Your task to perform on an android device: Show me popular games on the Play Store Image 0: 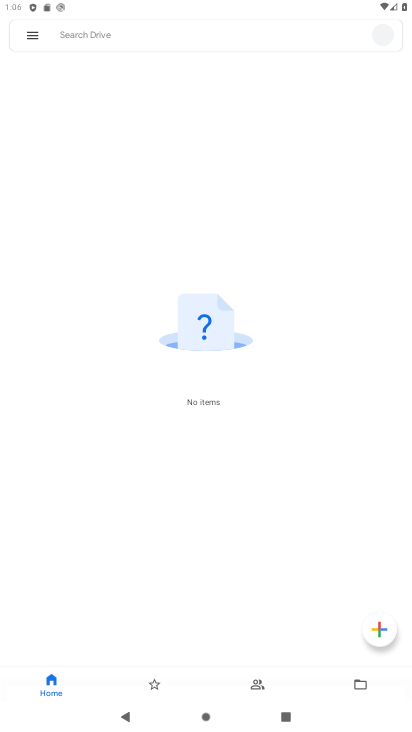
Step 0: press home button
Your task to perform on an android device: Show me popular games on the Play Store Image 1: 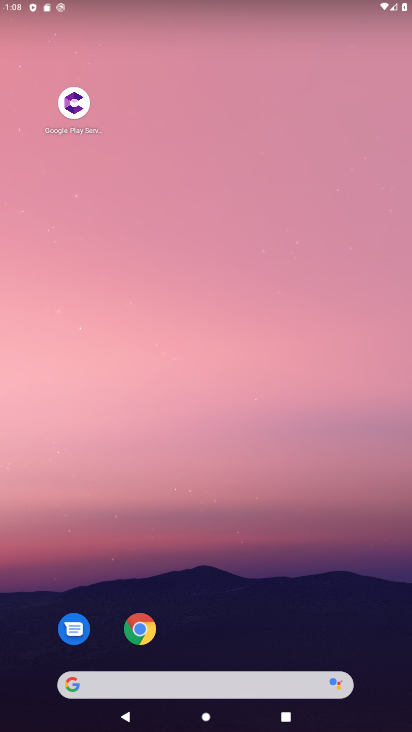
Step 1: drag from (275, 512) to (269, 124)
Your task to perform on an android device: Show me popular games on the Play Store Image 2: 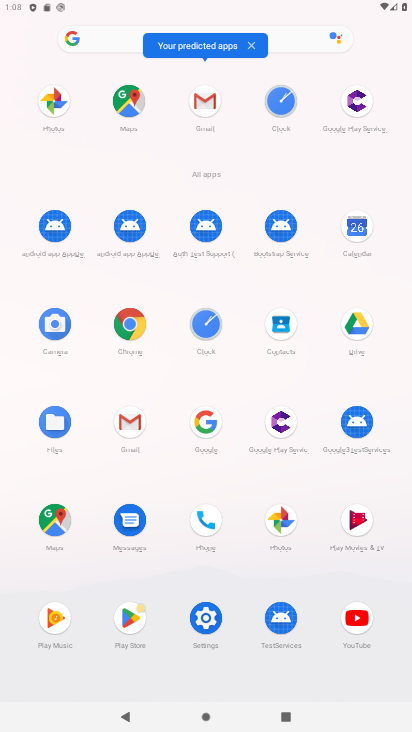
Step 2: click (131, 615)
Your task to perform on an android device: Show me popular games on the Play Store Image 3: 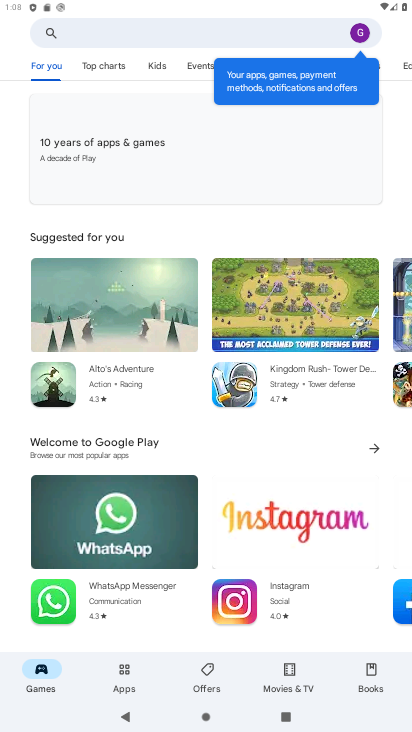
Step 3: task complete